Your task to perform on an android device: Search for "corsair k70" on costco, select the first entry, and add it to the cart. Image 0: 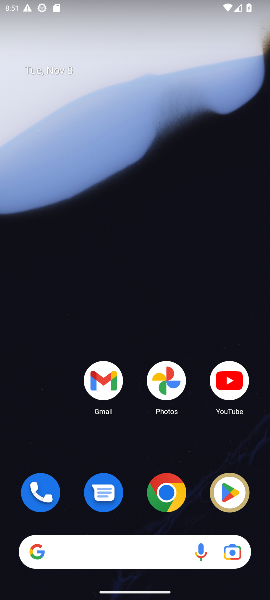
Step 0: click (173, 489)
Your task to perform on an android device: Search for "corsair k70" on costco, select the first entry, and add it to the cart. Image 1: 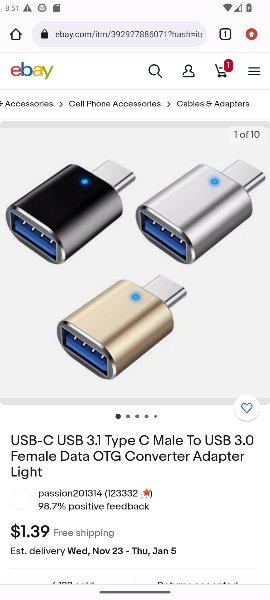
Step 1: click (88, 29)
Your task to perform on an android device: Search for "corsair k70" on costco, select the first entry, and add it to the cart. Image 2: 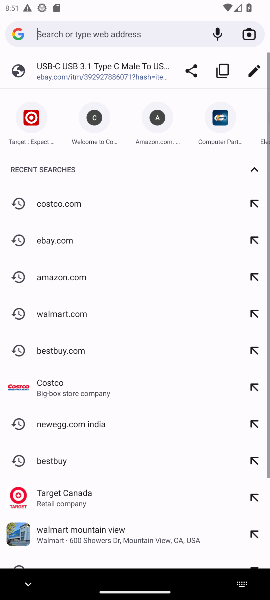
Step 2: click (67, 203)
Your task to perform on an android device: Search for "corsair k70" on costco, select the first entry, and add it to the cart. Image 3: 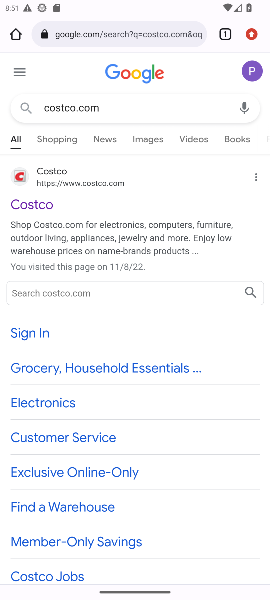
Step 3: click (72, 178)
Your task to perform on an android device: Search for "corsair k70" on costco, select the first entry, and add it to the cart. Image 4: 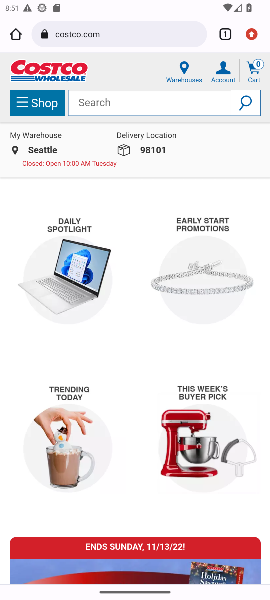
Step 4: click (177, 108)
Your task to perform on an android device: Search for "corsair k70" on costco, select the first entry, and add it to the cart. Image 5: 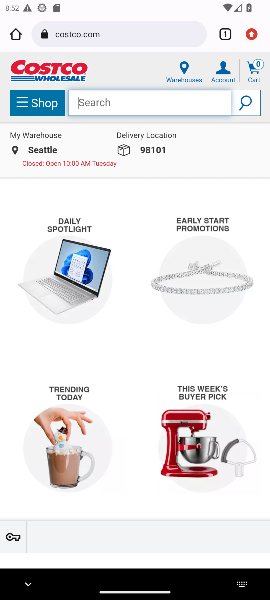
Step 5: type "corsair k70"
Your task to perform on an android device: Search for "corsair k70" on costco, select the first entry, and add it to the cart. Image 6: 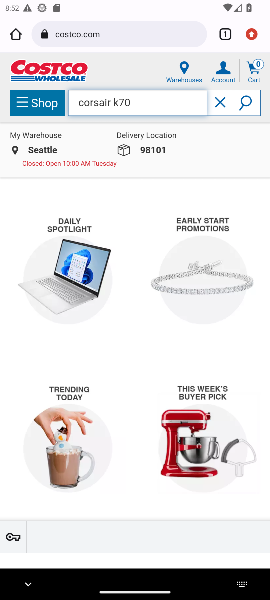
Step 6: click (212, 134)
Your task to perform on an android device: Search for "corsair k70" on costco, select the first entry, and add it to the cart. Image 7: 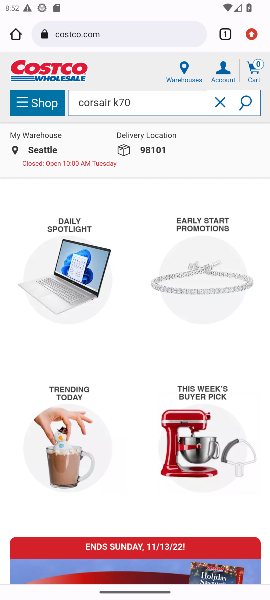
Step 7: task complete